Your task to perform on an android device: turn pop-ups off in chrome Image 0: 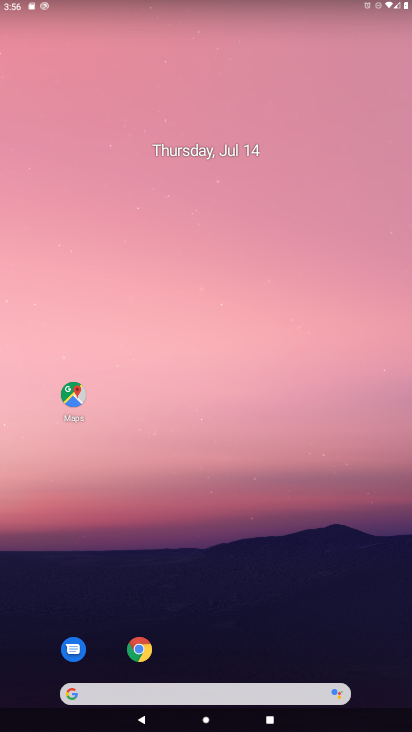
Step 0: drag from (204, 648) to (173, 0)
Your task to perform on an android device: turn pop-ups off in chrome Image 1: 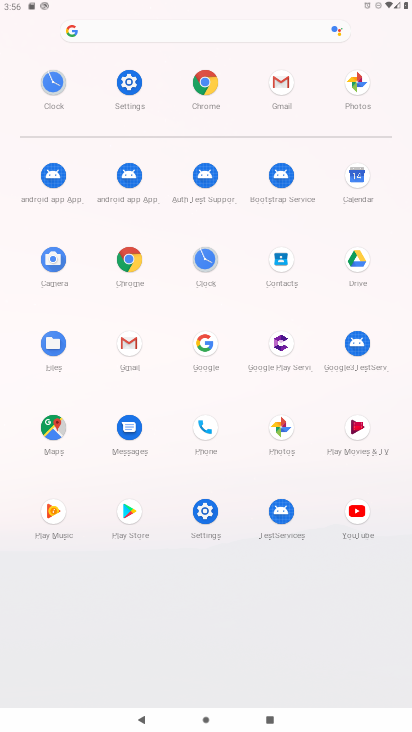
Step 1: click (134, 254)
Your task to perform on an android device: turn pop-ups off in chrome Image 2: 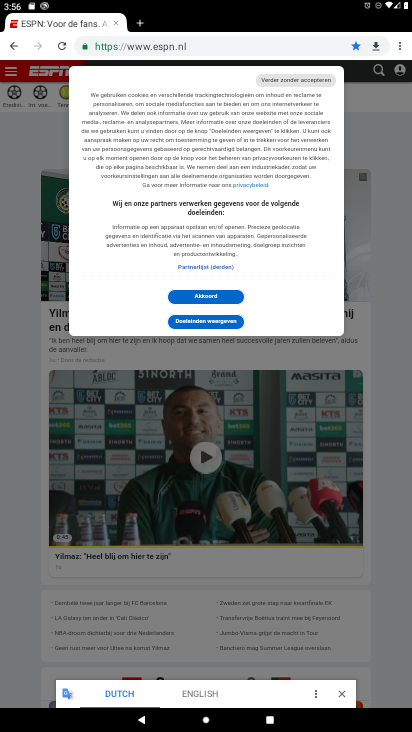
Step 2: click (396, 47)
Your task to perform on an android device: turn pop-ups off in chrome Image 3: 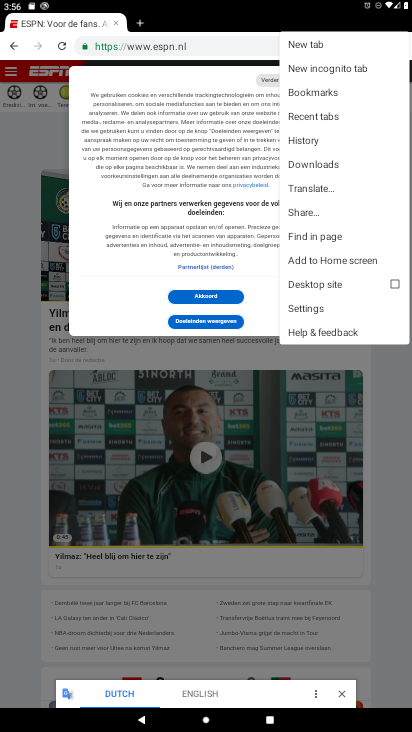
Step 3: click (304, 307)
Your task to perform on an android device: turn pop-ups off in chrome Image 4: 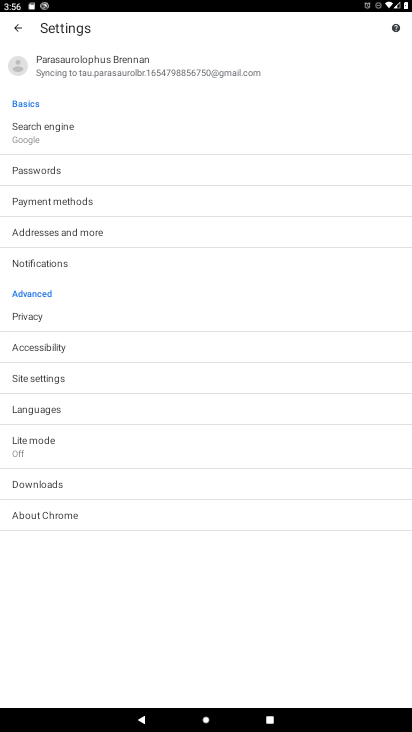
Step 4: click (54, 375)
Your task to perform on an android device: turn pop-ups off in chrome Image 5: 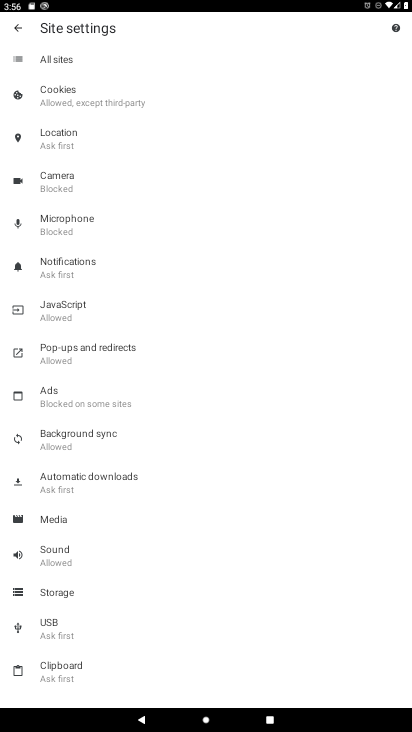
Step 5: click (100, 352)
Your task to perform on an android device: turn pop-ups off in chrome Image 6: 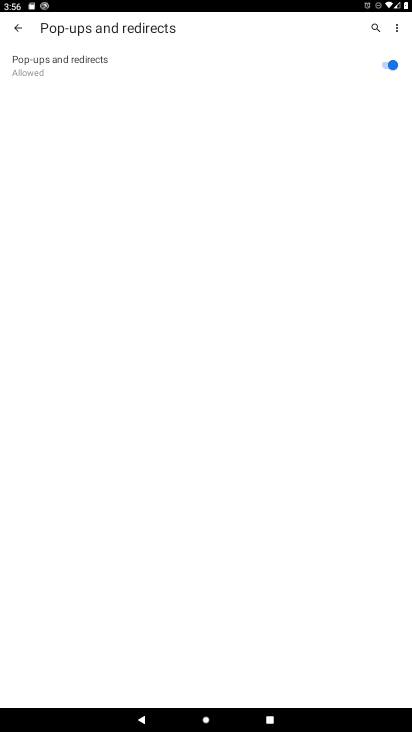
Step 6: click (374, 64)
Your task to perform on an android device: turn pop-ups off in chrome Image 7: 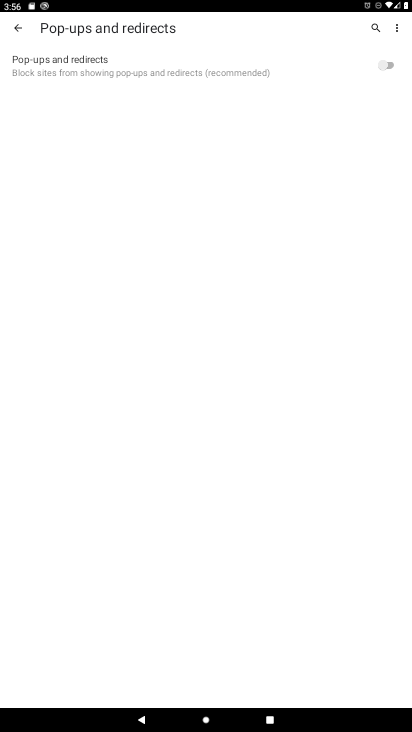
Step 7: task complete